Your task to perform on an android device: Check the news Image 0: 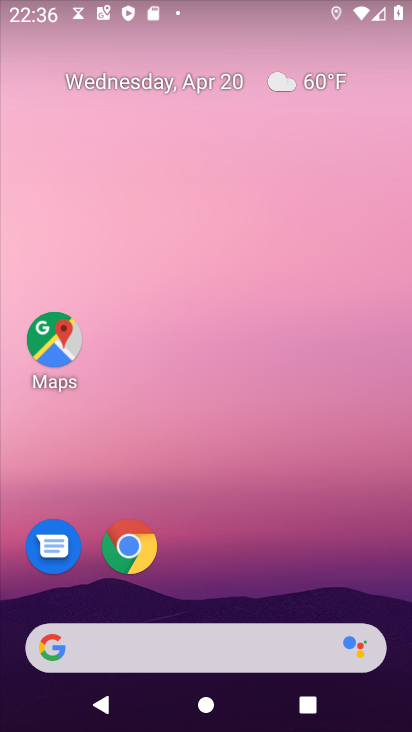
Step 0: drag from (251, 580) to (236, 73)
Your task to perform on an android device: Check the news Image 1: 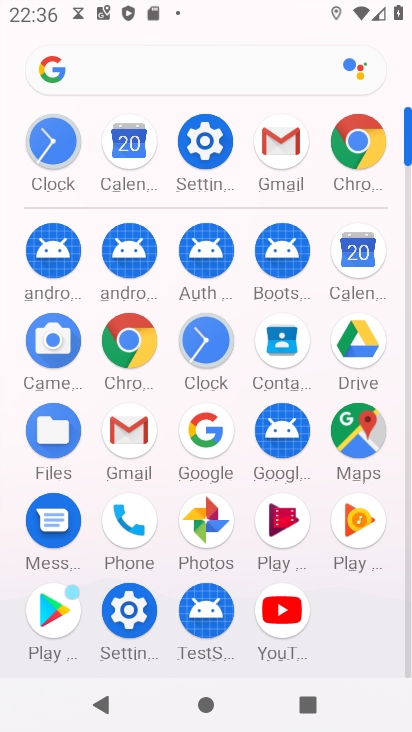
Step 1: click (216, 441)
Your task to perform on an android device: Check the news Image 2: 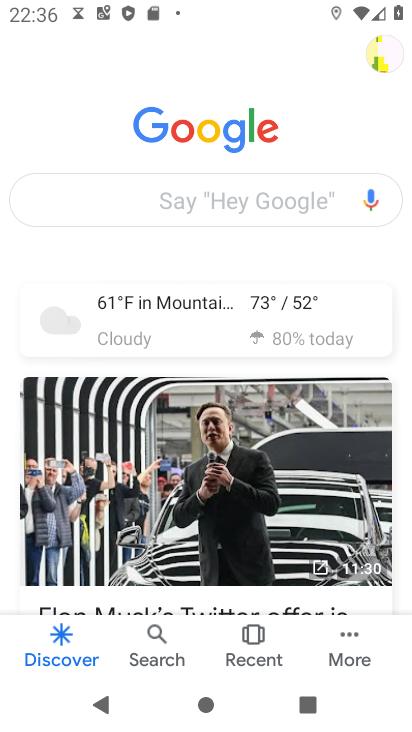
Step 2: task complete